Your task to perform on an android device: Open Wikipedia Image 0: 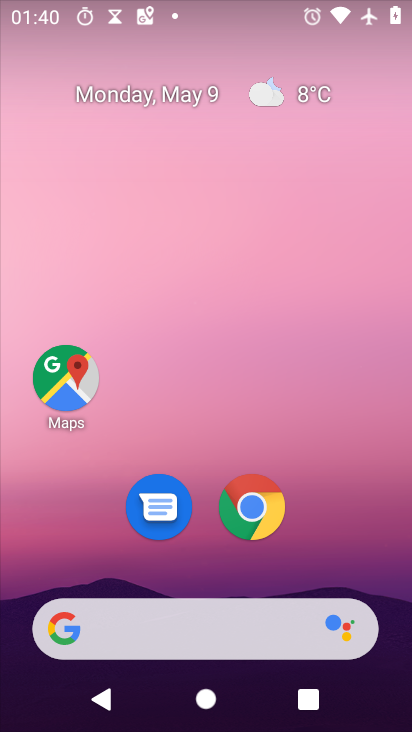
Step 0: click (250, 507)
Your task to perform on an android device: Open Wikipedia Image 1: 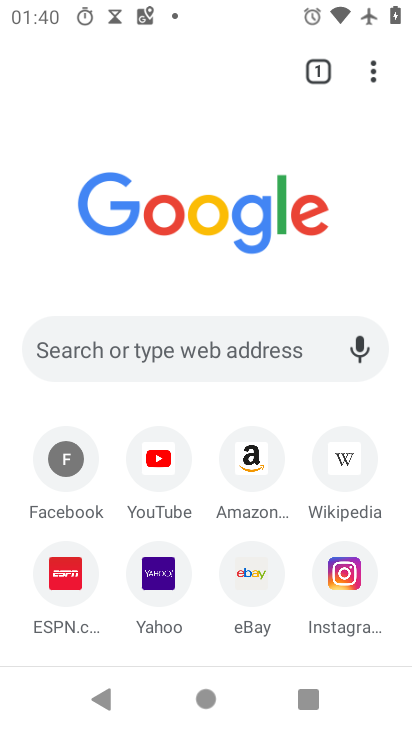
Step 1: click (343, 467)
Your task to perform on an android device: Open Wikipedia Image 2: 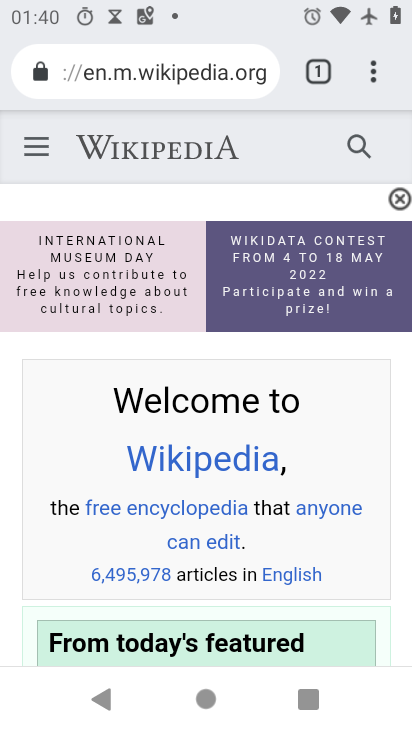
Step 2: task complete